Your task to perform on an android device: Open settings on Google Maps Image 0: 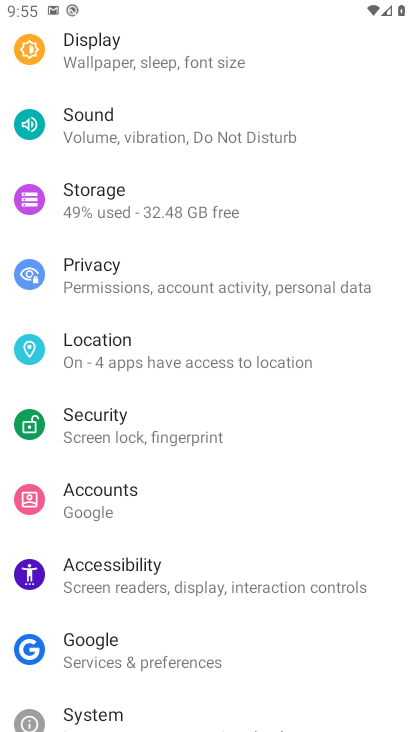
Step 0: press home button
Your task to perform on an android device: Open settings on Google Maps Image 1: 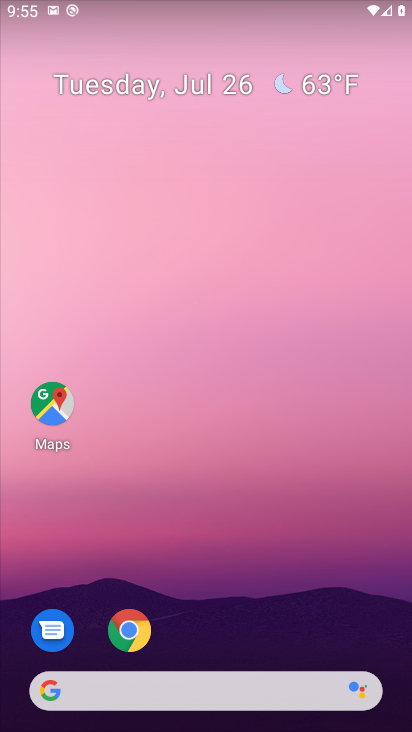
Step 1: click (53, 399)
Your task to perform on an android device: Open settings on Google Maps Image 2: 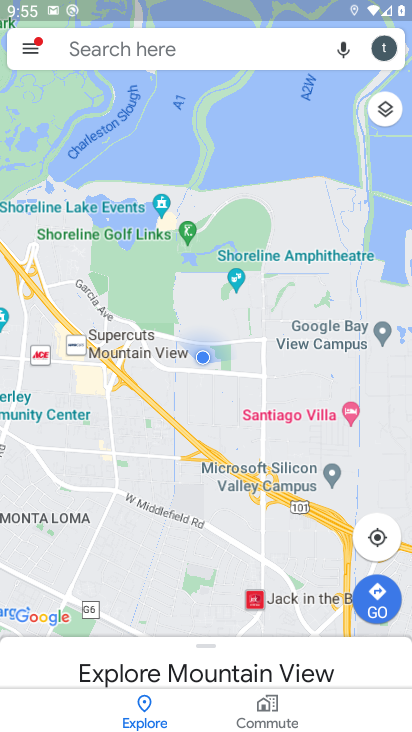
Step 2: click (29, 42)
Your task to perform on an android device: Open settings on Google Maps Image 3: 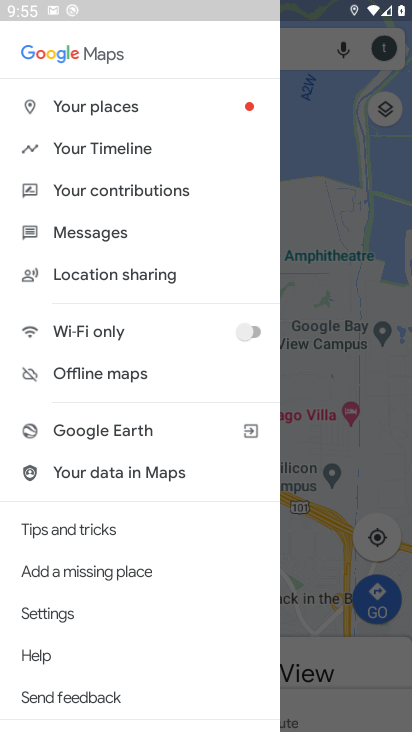
Step 3: click (75, 612)
Your task to perform on an android device: Open settings on Google Maps Image 4: 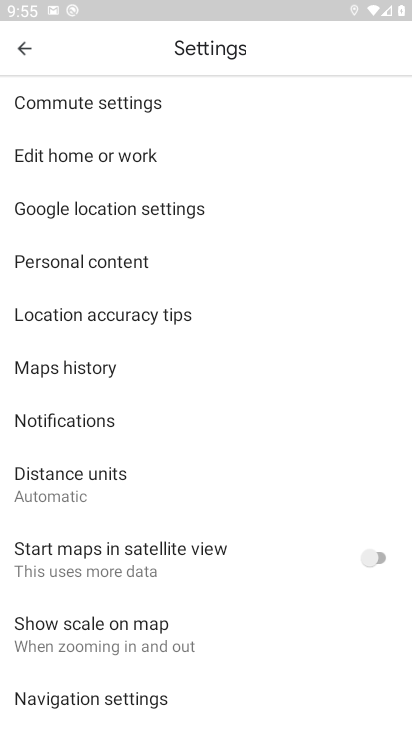
Step 4: task complete